Your task to perform on an android device: See recent photos Image 0: 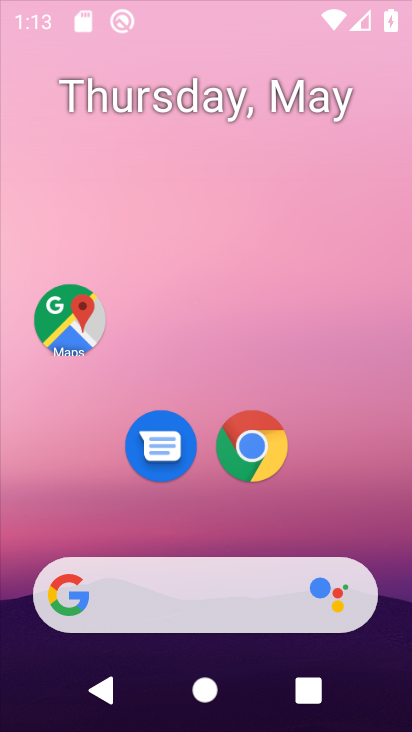
Step 0: click (230, 297)
Your task to perform on an android device: See recent photos Image 1: 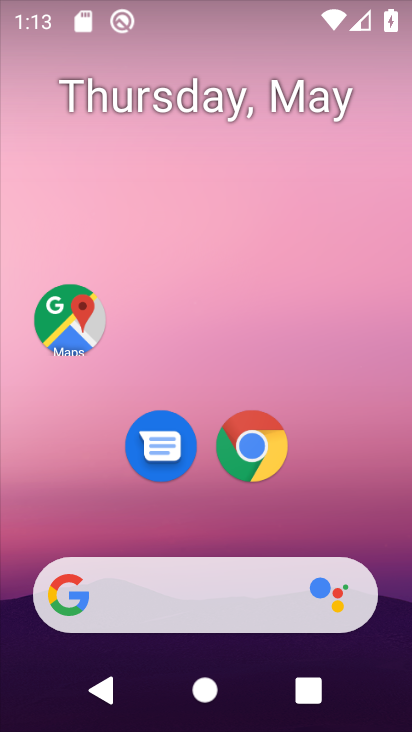
Step 1: drag from (253, 536) to (240, 202)
Your task to perform on an android device: See recent photos Image 2: 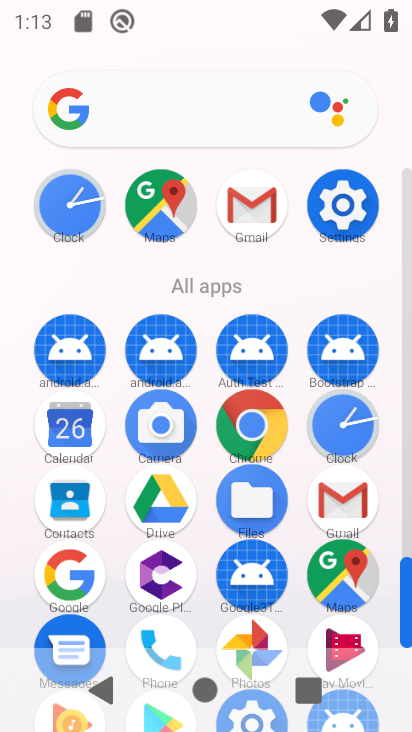
Step 2: click (256, 633)
Your task to perform on an android device: See recent photos Image 3: 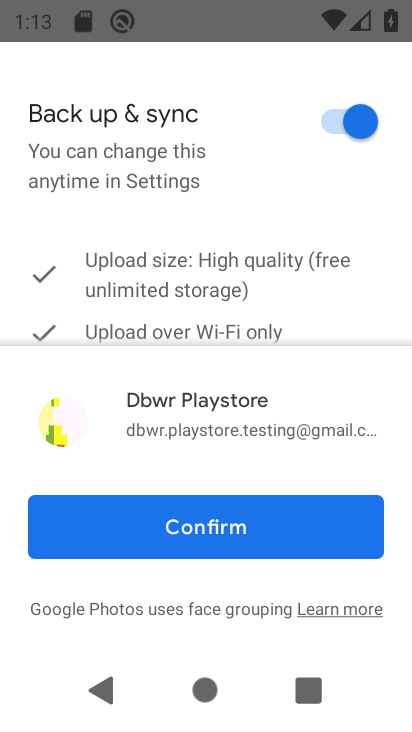
Step 3: click (219, 512)
Your task to perform on an android device: See recent photos Image 4: 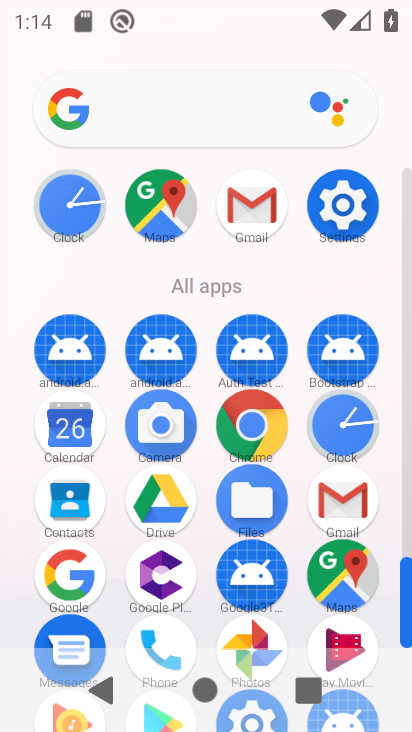
Step 4: drag from (242, 619) to (288, 369)
Your task to perform on an android device: See recent photos Image 5: 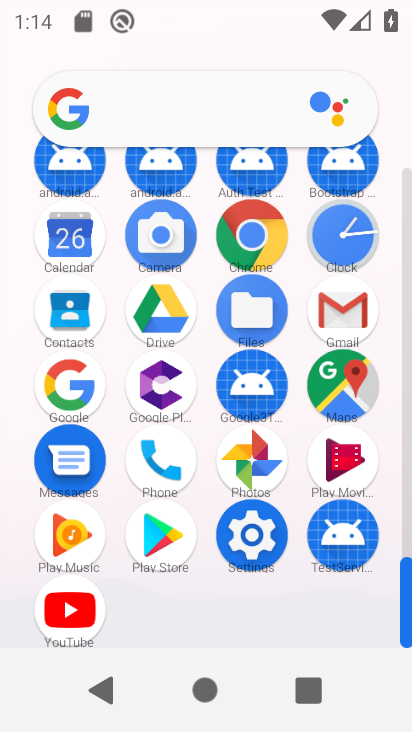
Step 5: click (265, 469)
Your task to perform on an android device: See recent photos Image 6: 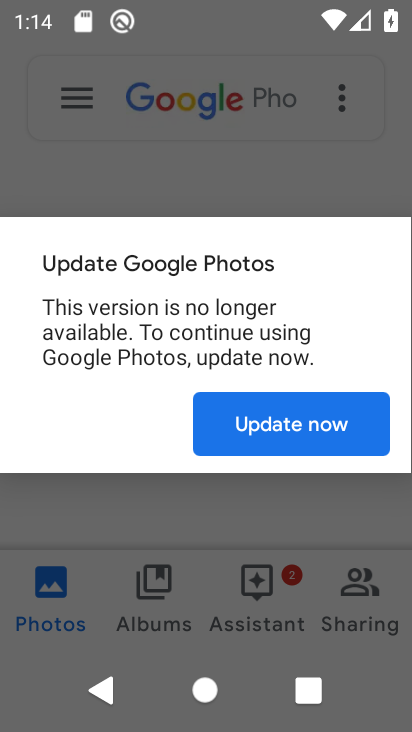
Step 6: click (309, 433)
Your task to perform on an android device: See recent photos Image 7: 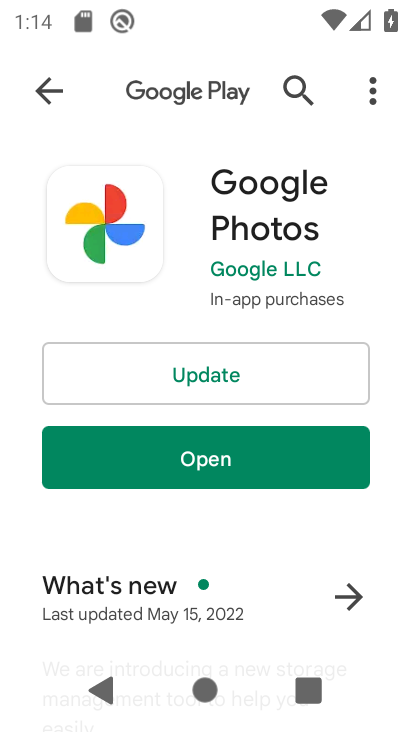
Step 7: click (257, 466)
Your task to perform on an android device: See recent photos Image 8: 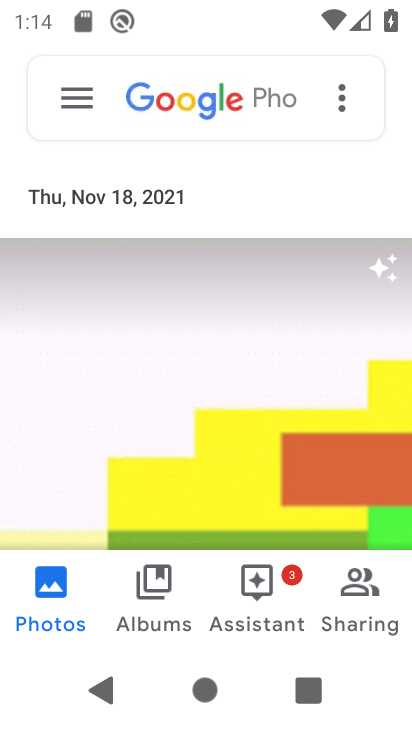
Step 8: task complete